Your task to perform on an android device: check storage Image 0: 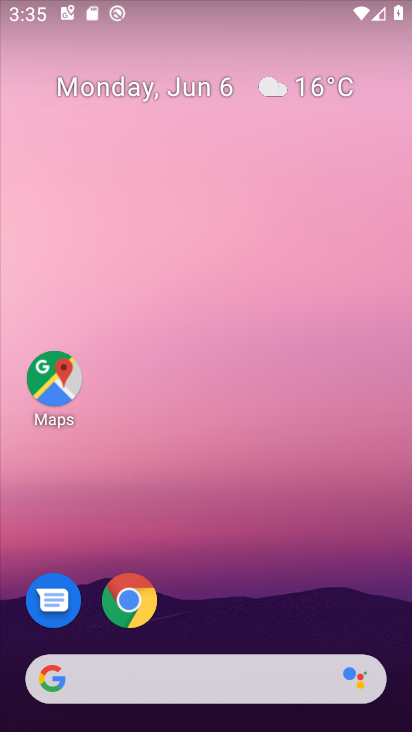
Step 0: drag from (263, 675) to (219, 0)
Your task to perform on an android device: check storage Image 1: 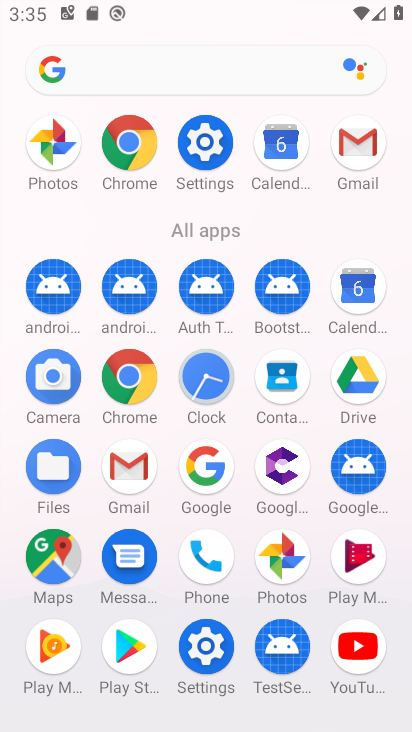
Step 1: drag from (182, 657) to (170, 84)
Your task to perform on an android device: check storage Image 2: 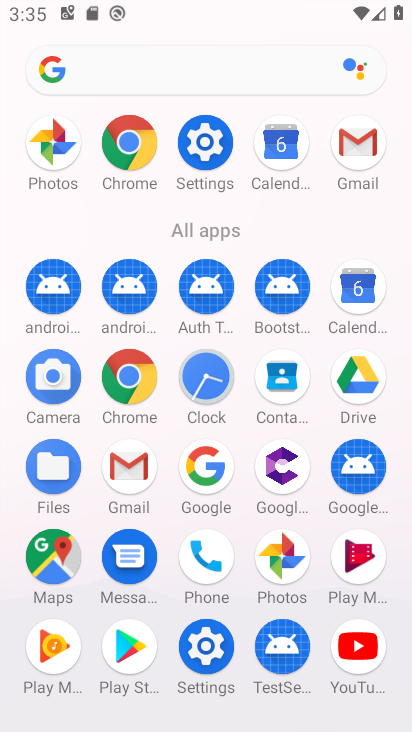
Step 2: click (202, 640)
Your task to perform on an android device: check storage Image 3: 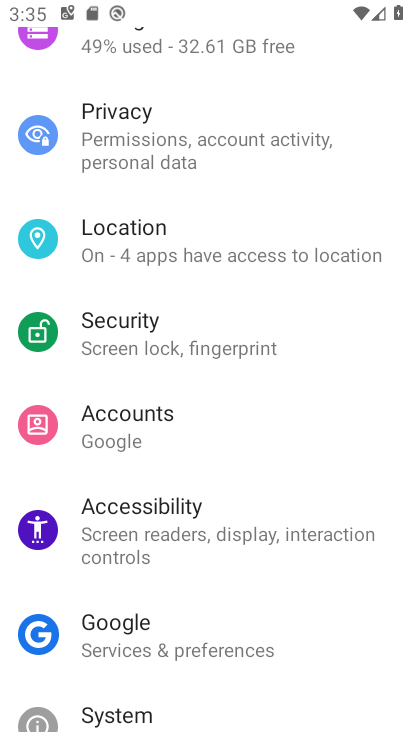
Step 3: drag from (106, 215) to (149, 603)
Your task to perform on an android device: check storage Image 4: 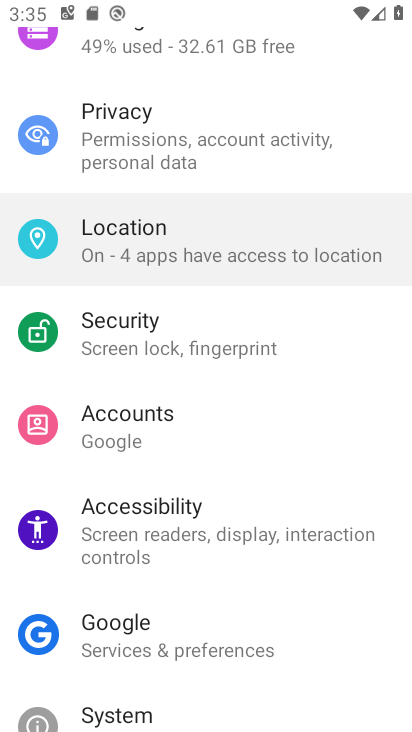
Step 4: drag from (173, 197) to (178, 601)
Your task to perform on an android device: check storage Image 5: 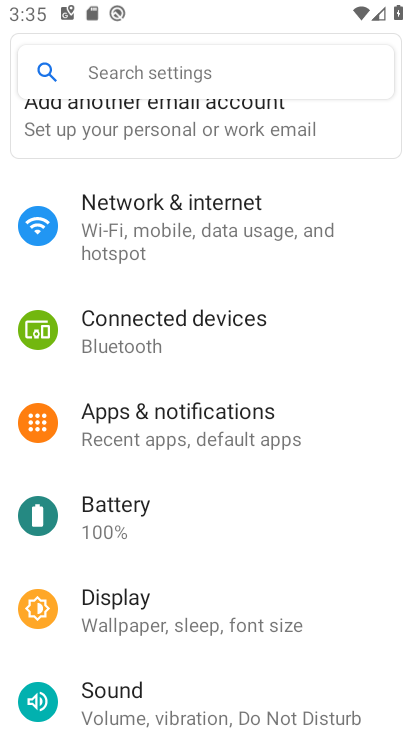
Step 5: drag from (229, 527) to (165, 41)
Your task to perform on an android device: check storage Image 6: 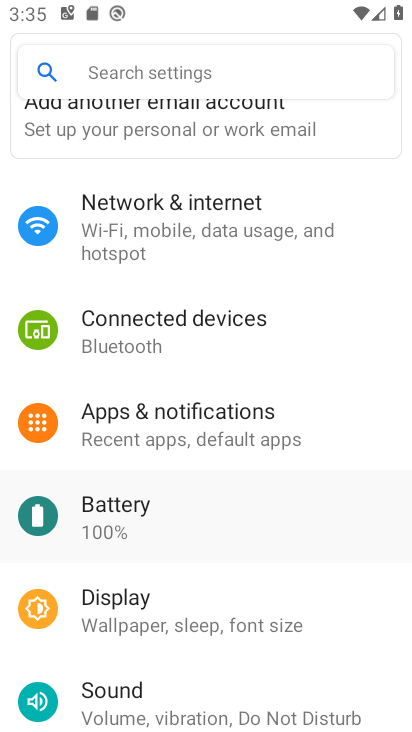
Step 6: drag from (173, 548) to (198, 268)
Your task to perform on an android device: check storage Image 7: 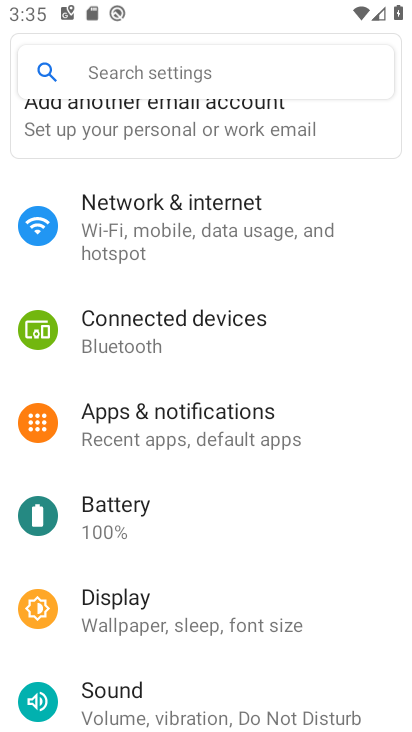
Step 7: drag from (183, 520) to (183, 265)
Your task to perform on an android device: check storage Image 8: 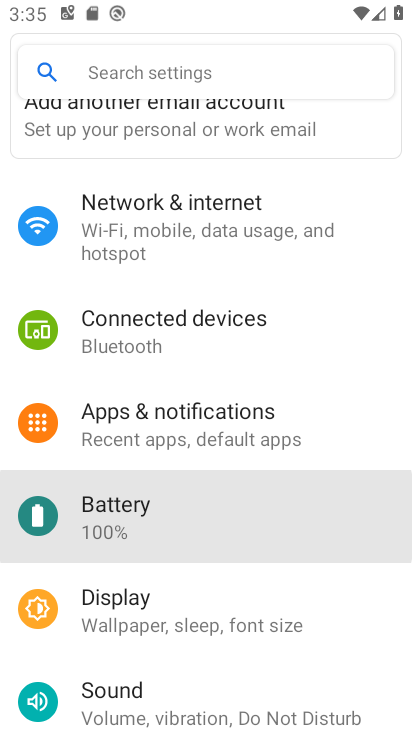
Step 8: drag from (204, 571) to (145, 144)
Your task to perform on an android device: check storage Image 9: 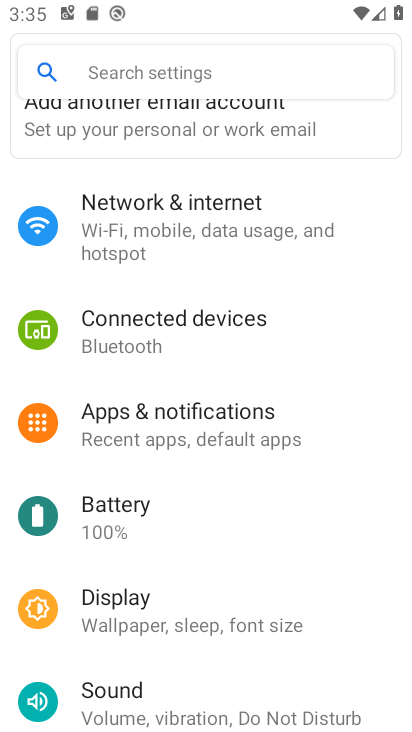
Step 9: drag from (102, 527) to (48, 197)
Your task to perform on an android device: check storage Image 10: 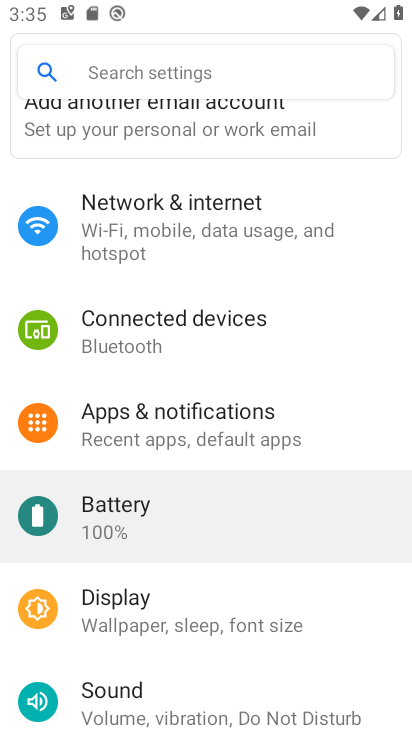
Step 10: drag from (116, 630) to (156, 255)
Your task to perform on an android device: check storage Image 11: 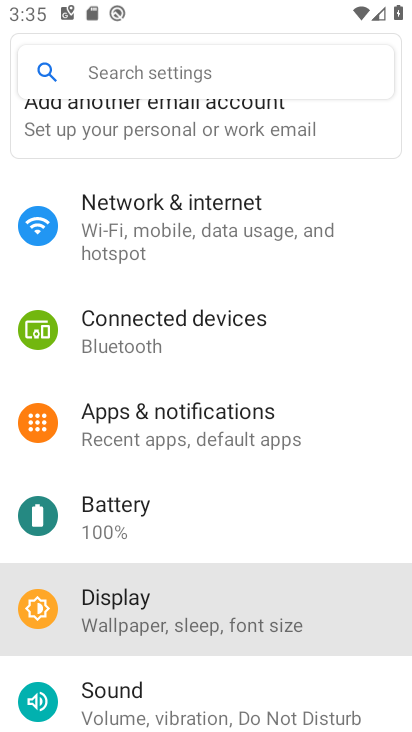
Step 11: drag from (169, 625) to (168, 315)
Your task to perform on an android device: check storage Image 12: 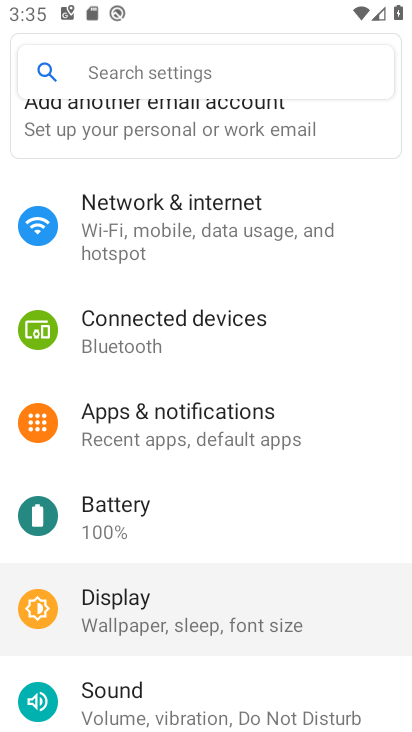
Step 12: drag from (225, 577) to (228, 347)
Your task to perform on an android device: check storage Image 13: 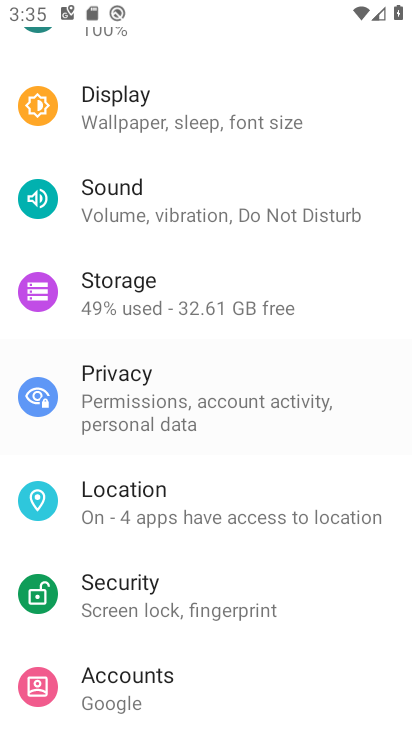
Step 13: drag from (210, 631) to (146, 224)
Your task to perform on an android device: check storage Image 14: 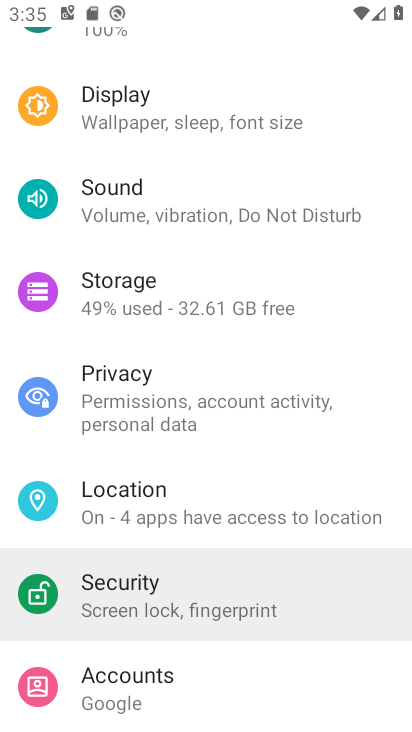
Step 14: drag from (174, 555) to (170, 126)
Your task to perform on an android device: check storage Image 15: 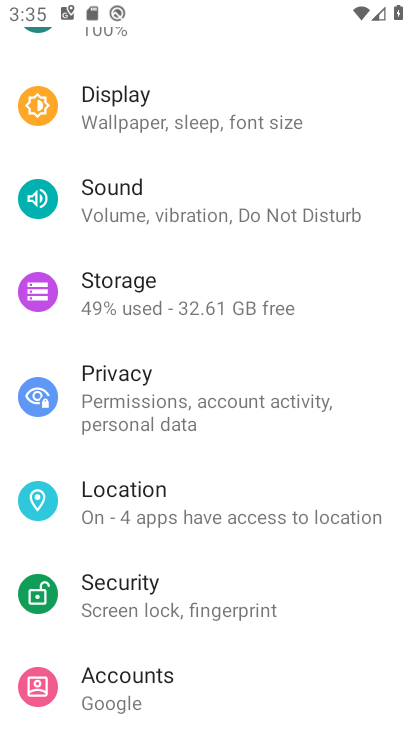
Step 15: click (120, 283)
Your task to perform on an android device: check storage Image 16: 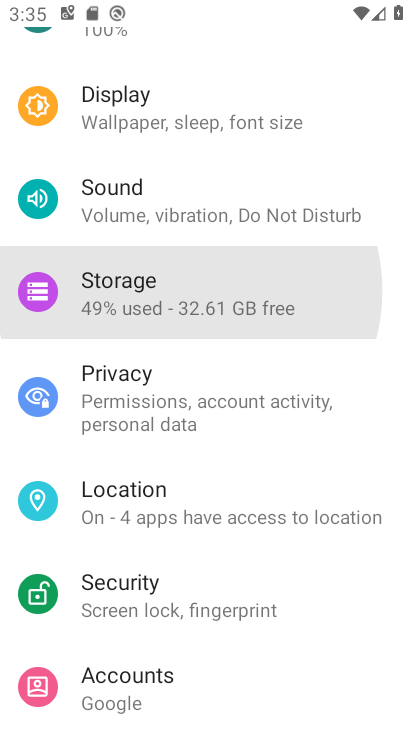
Step 16: click (121, 282)
Your task to perform on an android device: check storage Image 17: 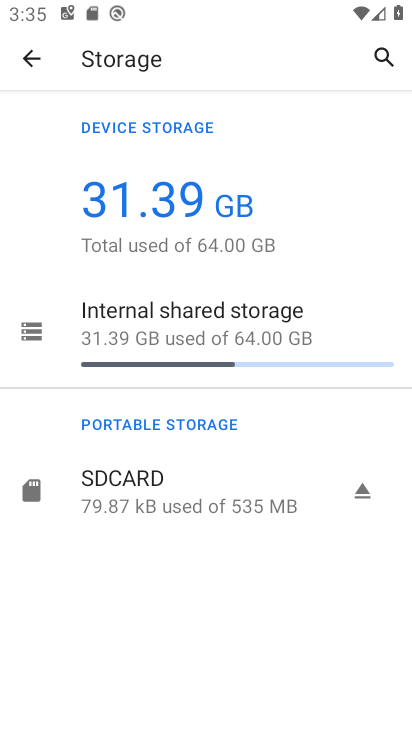
Step 17: task complete